Your task to perform on an android device: Is it going to rain today? Image 0: 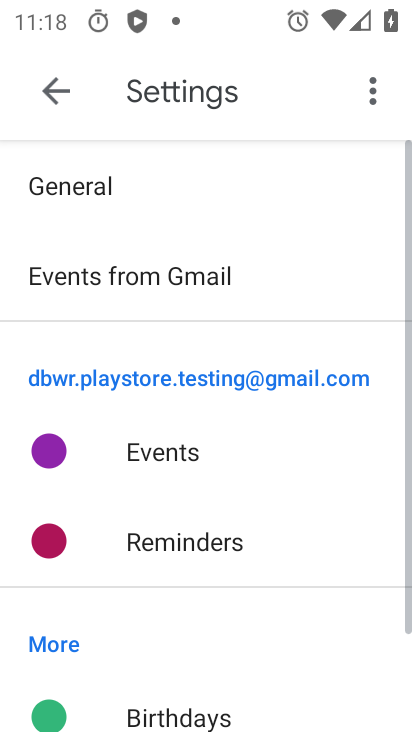
Step 0: drag from (19, 293) to (388, 439)
Your task to perform on an android device: Is it going to rain today? Image 1: 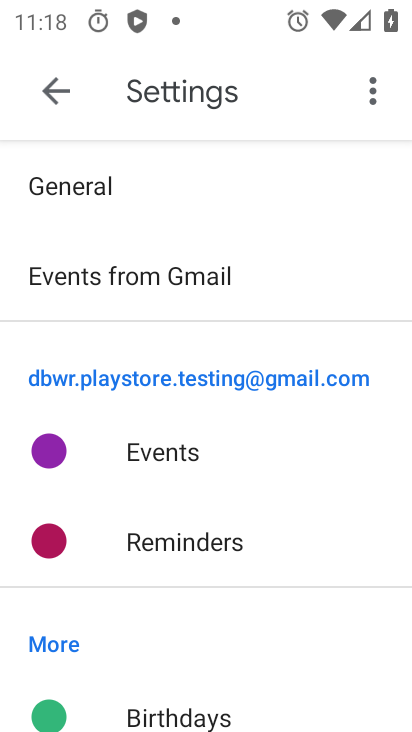
Step 1: click (36, 80)
Your task to perform on an android device: Is it going to rain today? Image 2: 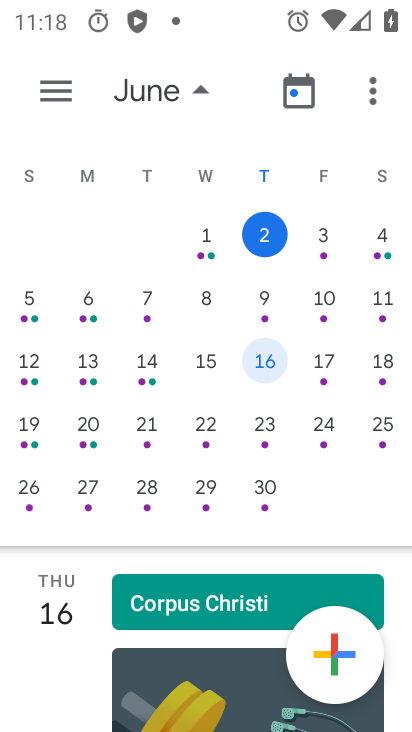
Step 2: press back button
Your task to perform on an android device: Is it going to rain today? Image 3: 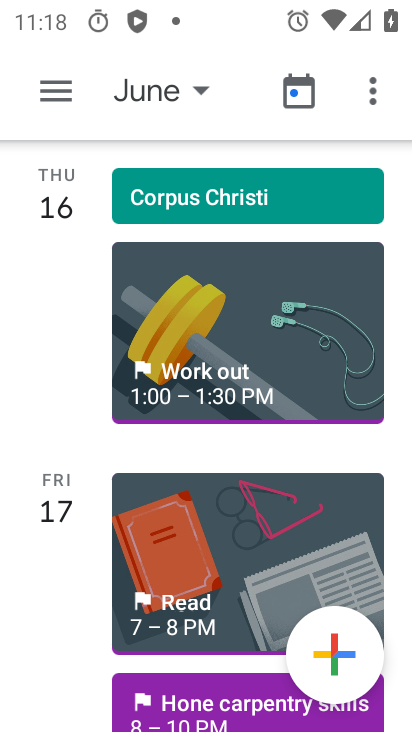
Step 3: press home button
Your task to perform on an android device: Is it going to rain today? Image 4: 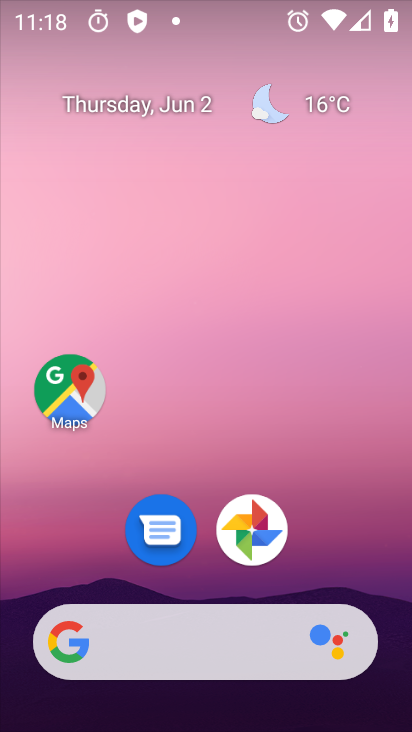
Step 4: drag from (1, 220) to (411, 544)
Your task to perform on an android device: Is it going to rain today? Image 5: 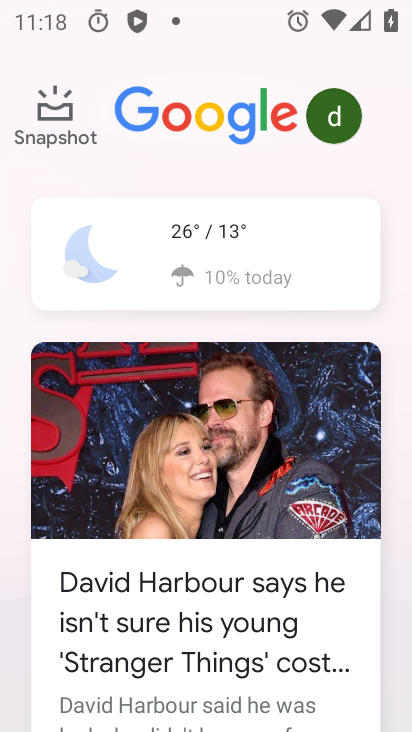
Step 5: drag from (66, 247) to (373, 420)
Your task to perform on an android device: Is it going to rain today? Image 6: 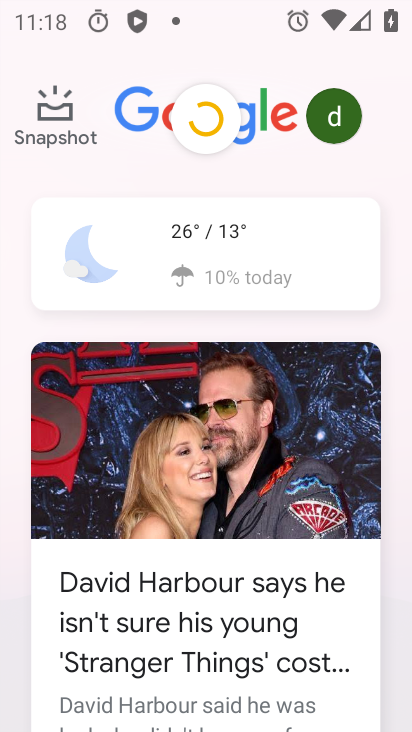
Step 6: drag from (156, 490) to (137, 264)
Your task to perform on an android device: Is it going to rain today? Image 7: 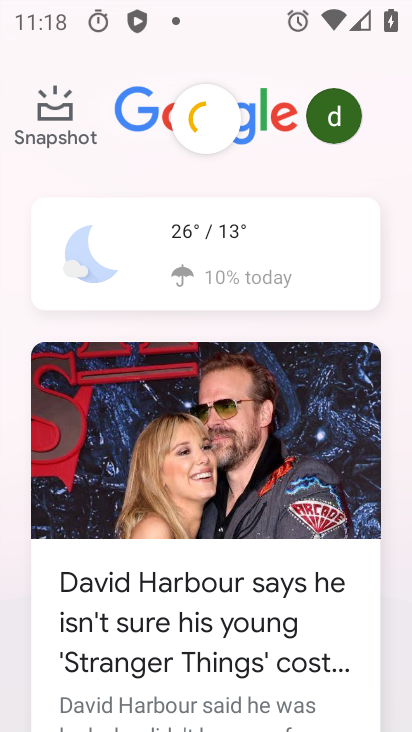
Step 7: drag from (179, 515) to (180, 244)
Your task to perform on an android device: Is it going to rain today? Image 8: 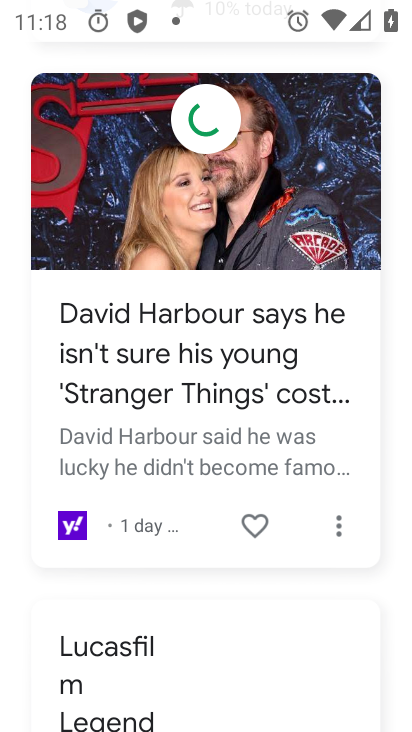
Step 8: drag from (192, 520) to (208, 287)
Your task to perform on an android device: Is it going to rain today? Image 9: 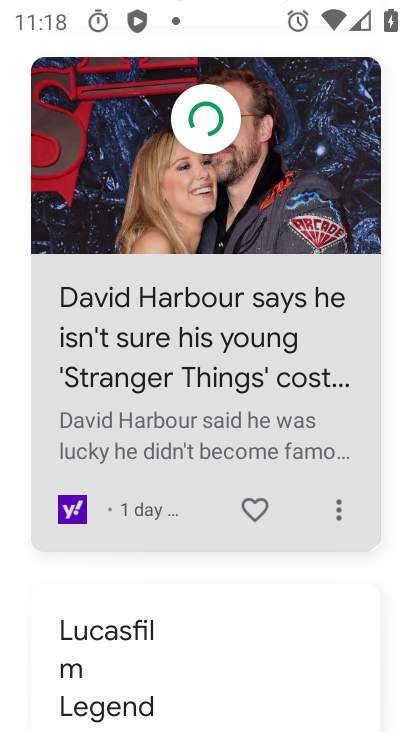
Step 9: drag from (193, 521) to (158, 214)
Your task to perform on an android device: Is it going to rain today? Image 10: 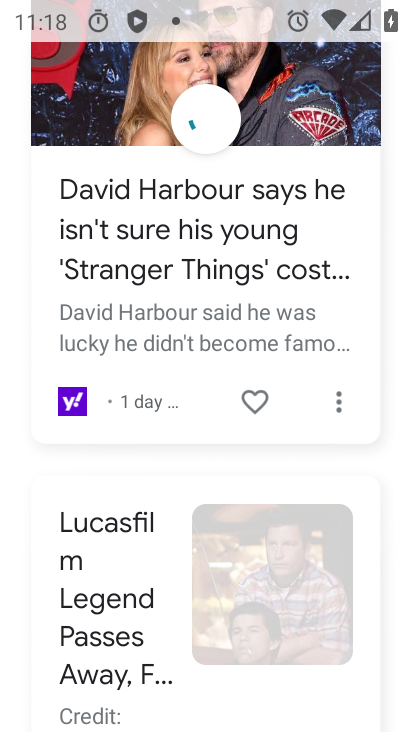
Step 10: drag from (156, 419) to (147, 175)
Your task to perform on an android device: Is it going to rain today? Image 11: 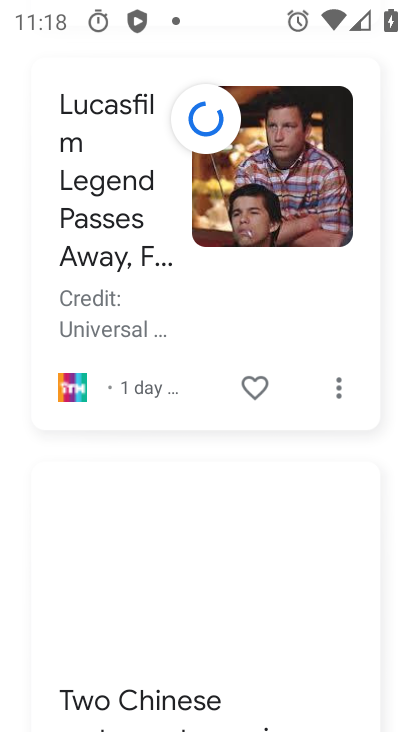
Step 11: drag from (156, 337) to (110, 148)
Your task to perform on an android device: Is it going to rain today? Image 12: 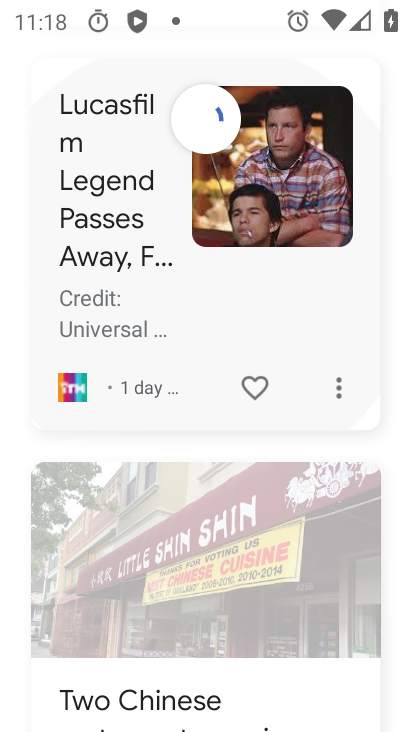
Step 12: drag from (141, 361) to (135, 166)
Your task to perform on an android device: Is it going to rain today? Image 13: 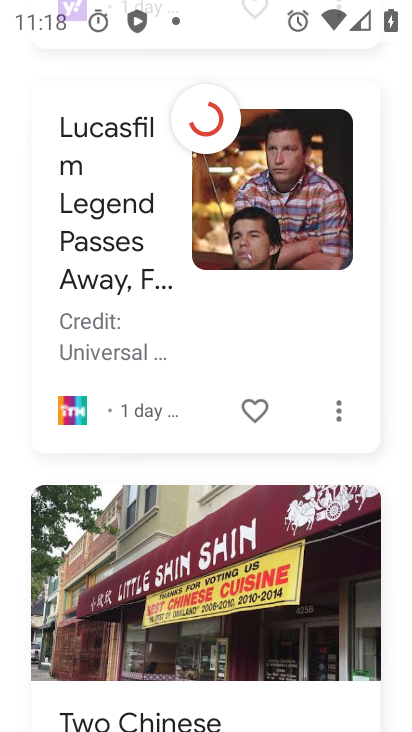
Step 13: drag from (177, 371) to (177, 149)
Your task to perform on an android device: Is it going to rain today? Image 14: 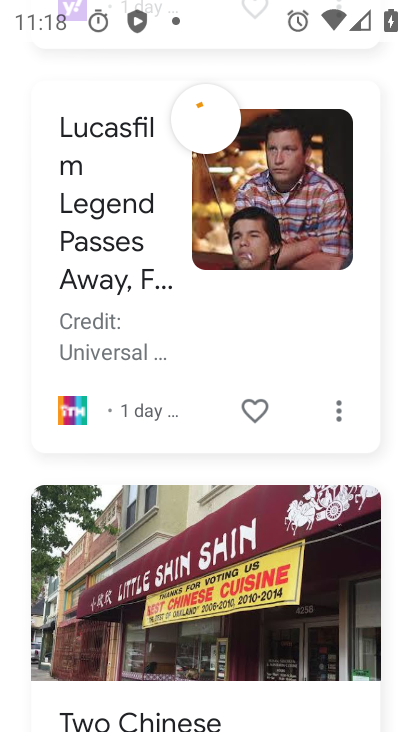
Step 14: drag from (211, 418) to (211, 189)
Your task to perform on an android device: Is it going to rain today? Image 15: 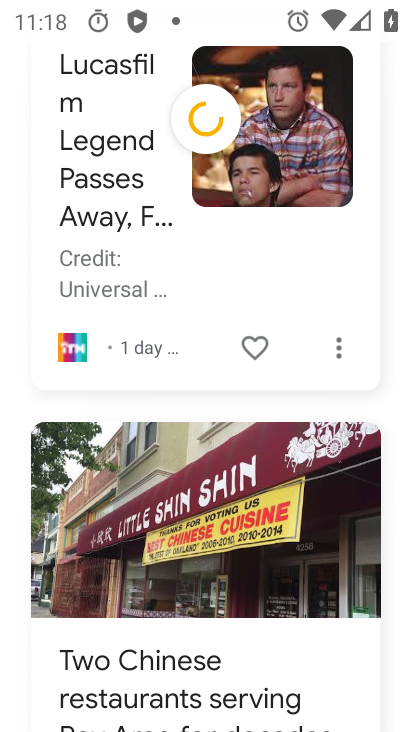
Step 15: drag from (231, 313) to (231, 225)
Your task to perform on an android device: Is it going to rain today? Image 16: 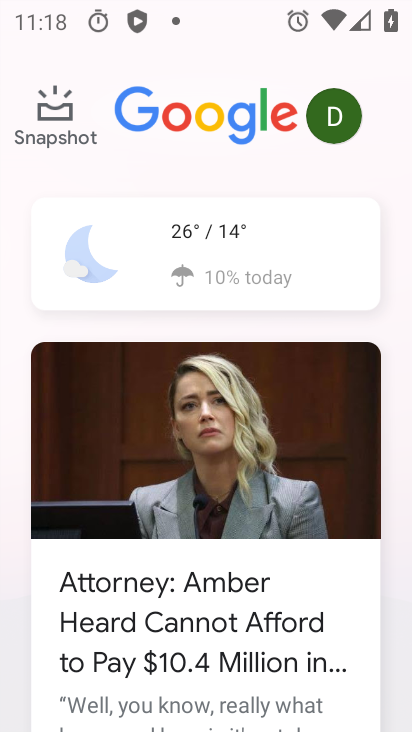
Step 16: click (148, 225)
Your task to perform on an android device: Is it going to rain today? Image 17: 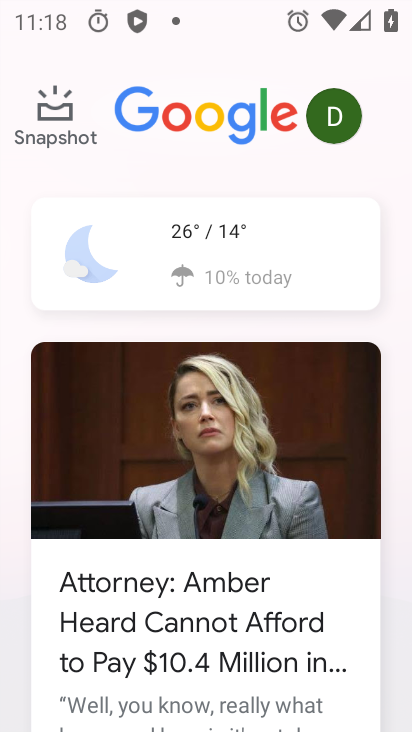
Step 17: click (148, 225)
Your task to perform on an android device: Is it going to rain today? Image 18: 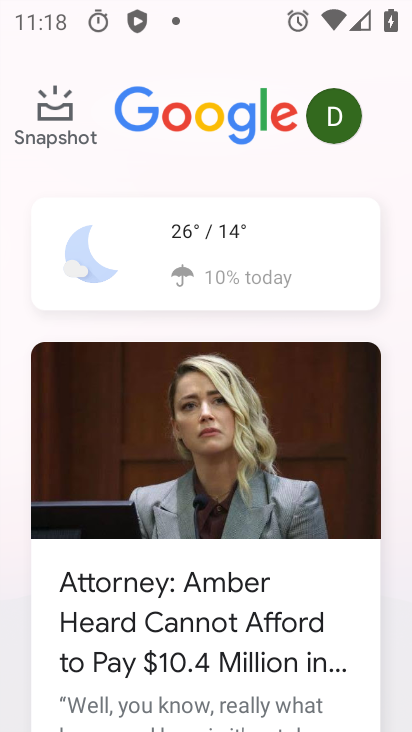
Step 18: click (148, 225)
Your task to perform on an android device: Is it going to rain today? Image 19: 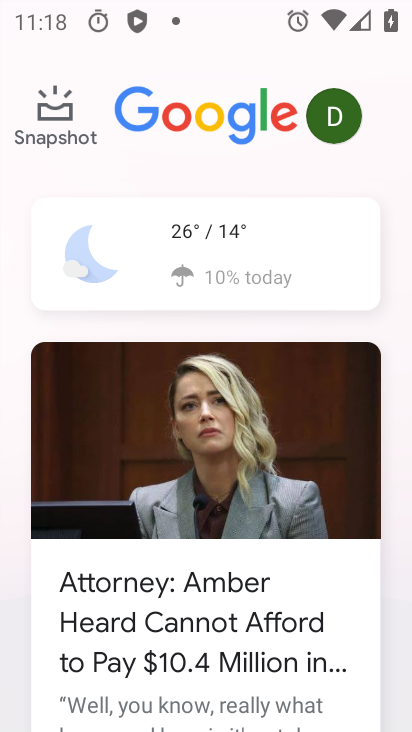
Step 19: click (145, 231)
Your task to perform on an android device: Is it going to rain today? Image 20: 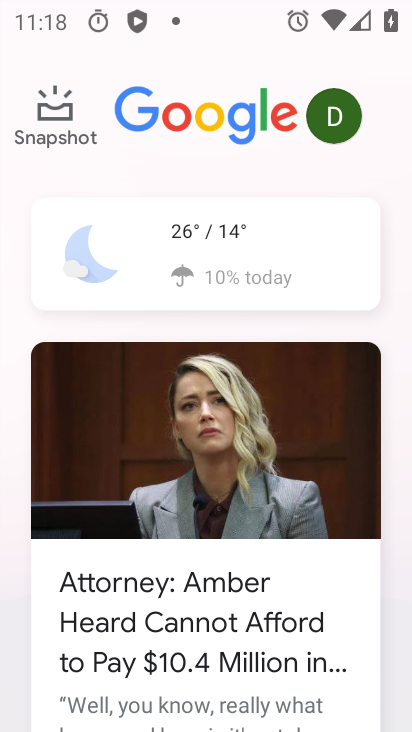
Step 20: click (145, 231)
Your task to perform on an android device: Is it going to rain today? Image 21: 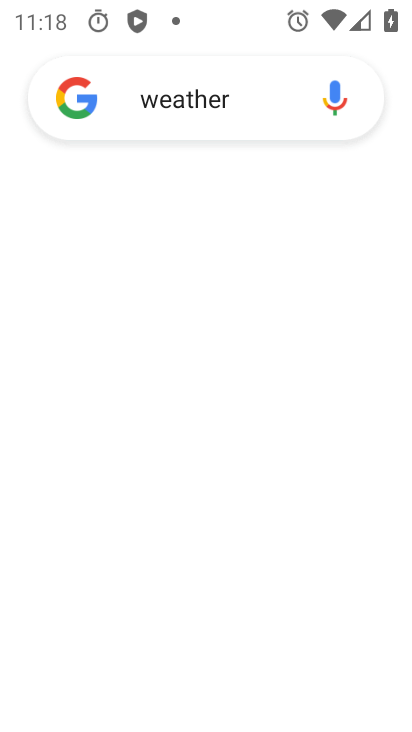
Step 21: click (143, 235)
Your task to perform on an android device: Is it going to rain today? Image 22: 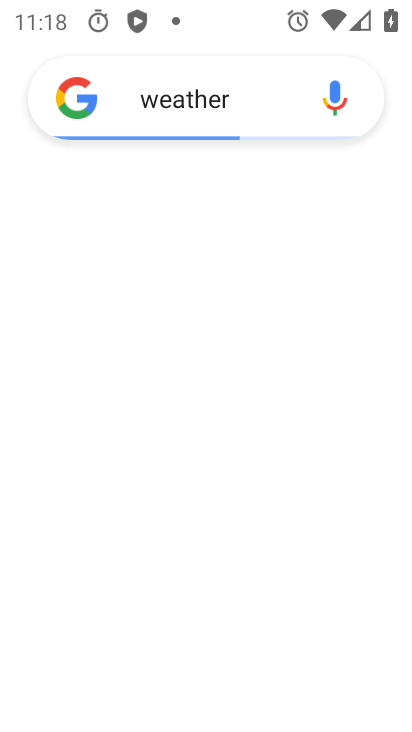
Step 22: click (171, 264)
Your task to perform on an android device: Is it going to rain today? Image 23: 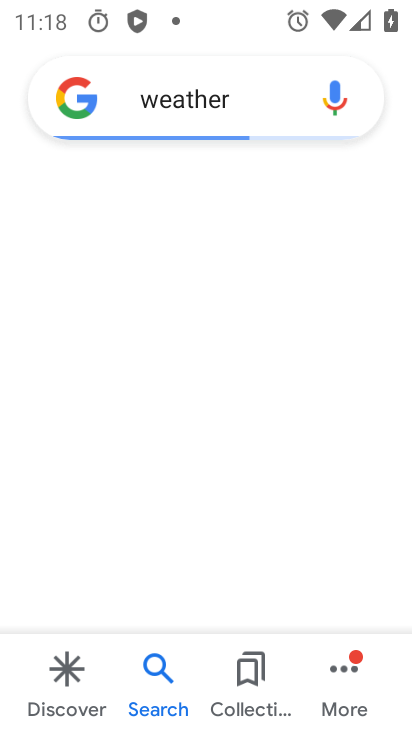
Step 23: click (171, 264)
Your task to perform on an android device: Is it going to rain today? Image 24: 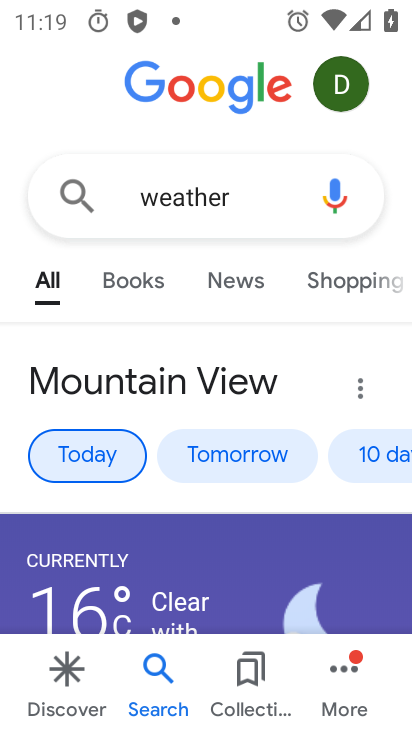
Step 24: task complete